Your task to perform on an android device: uninstall "Spotify" Image 0: 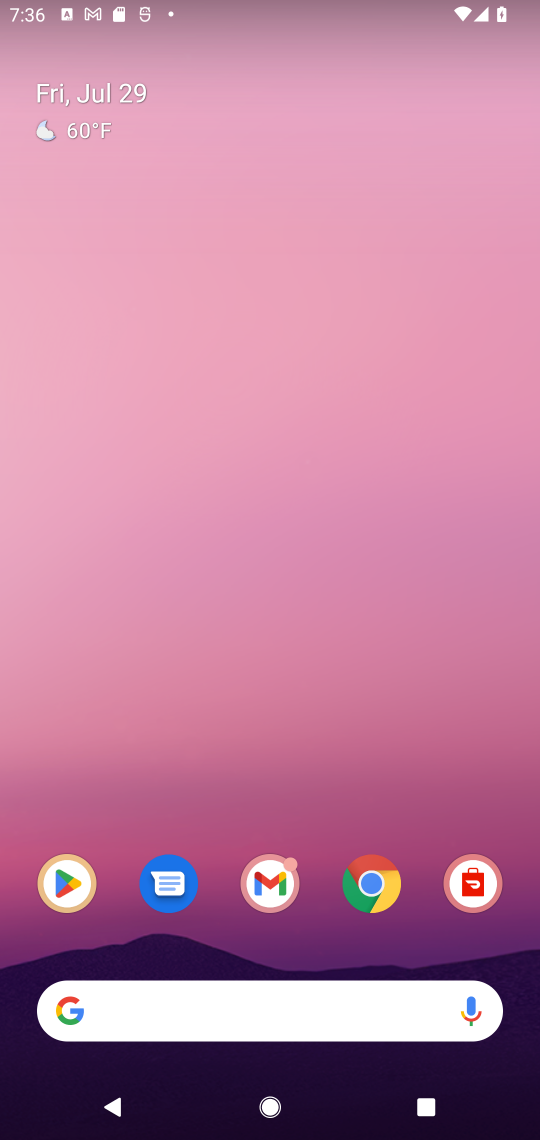
Step 0: click (53, 889)
Your task to perform on an android device: uninstall "Spotify" Image 1: 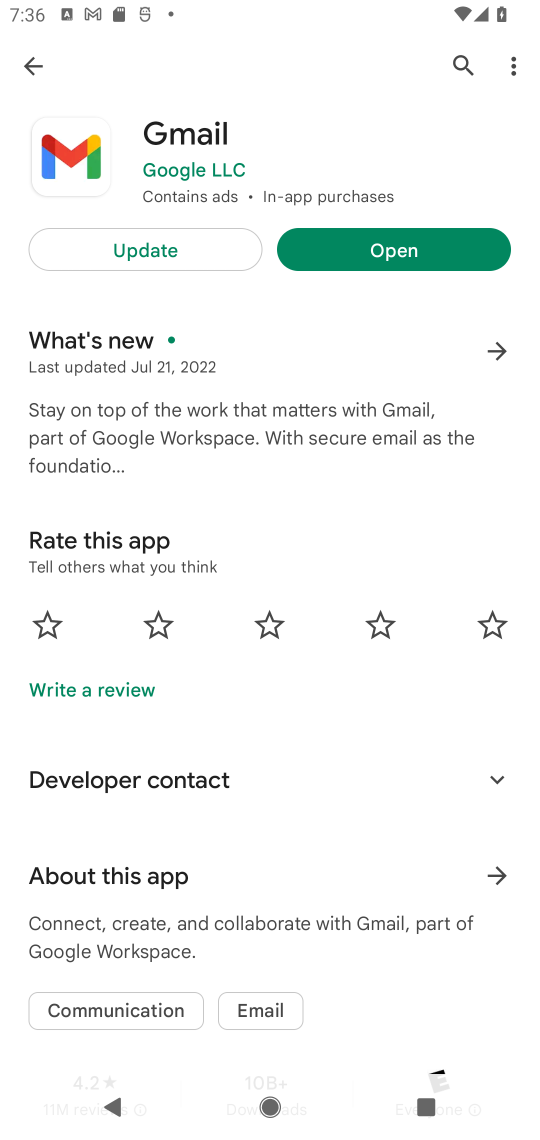
Step 1: click (458, 67)
Your task to perform on an android device: uninstall "Spotify" Image 2: 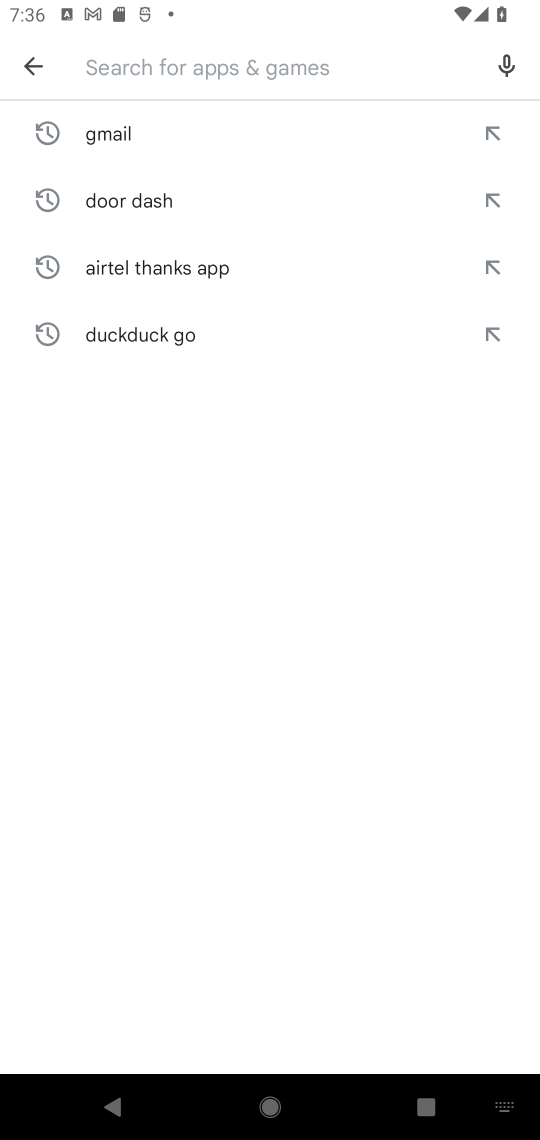
Step 2: click (138, 64)
Your task to perform on an android device: uninstall "Spotify" Image 3: 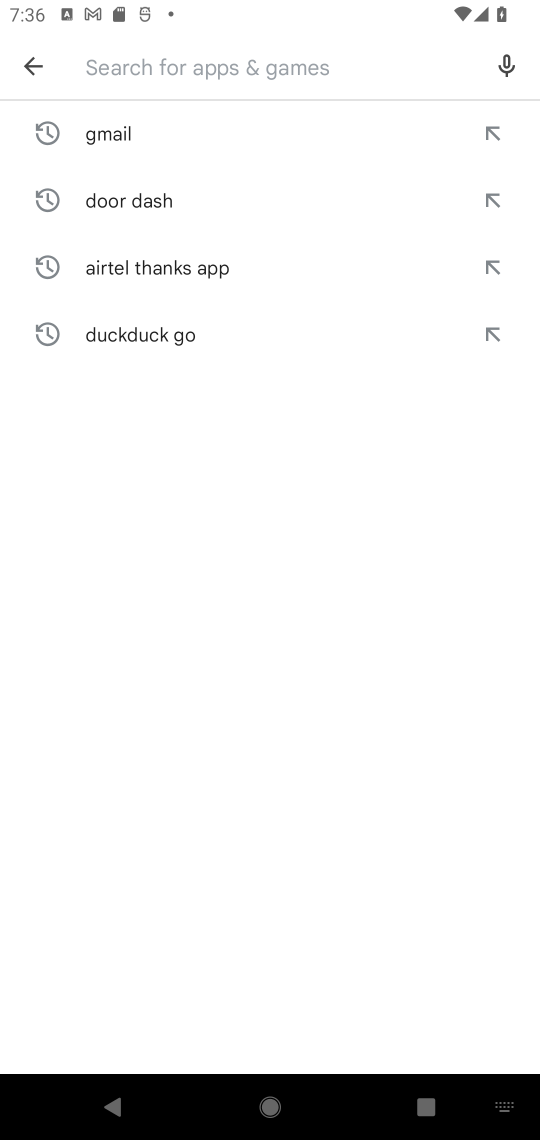
Step 3: type "spotify"
Your task to perform on an android device: uninstall "Spotify" Image 4: 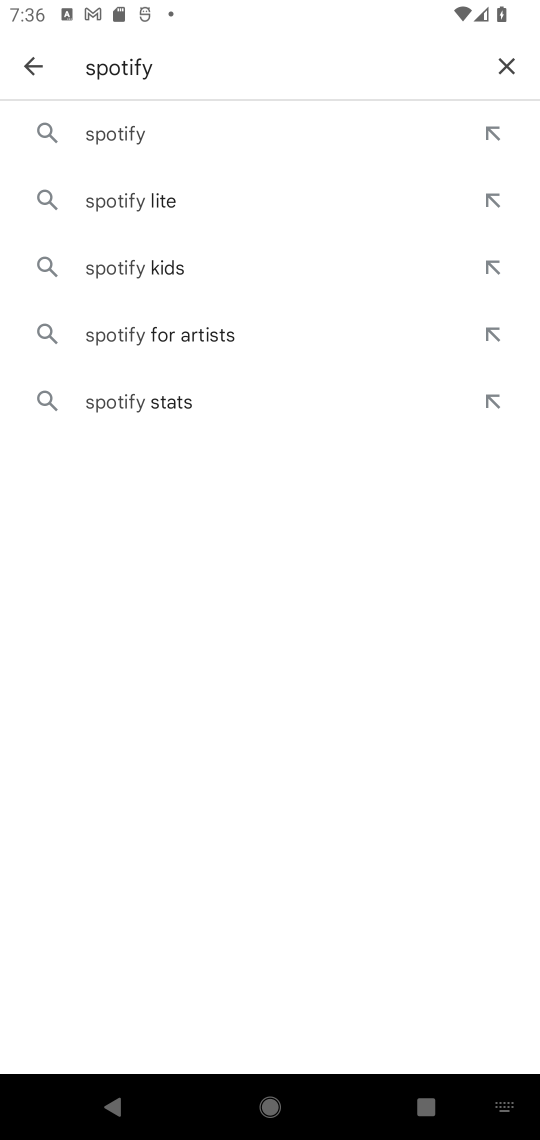
Step 4: click (147, 121)
Your task to perform on an android device: uninstall "Spotify" Image 5: 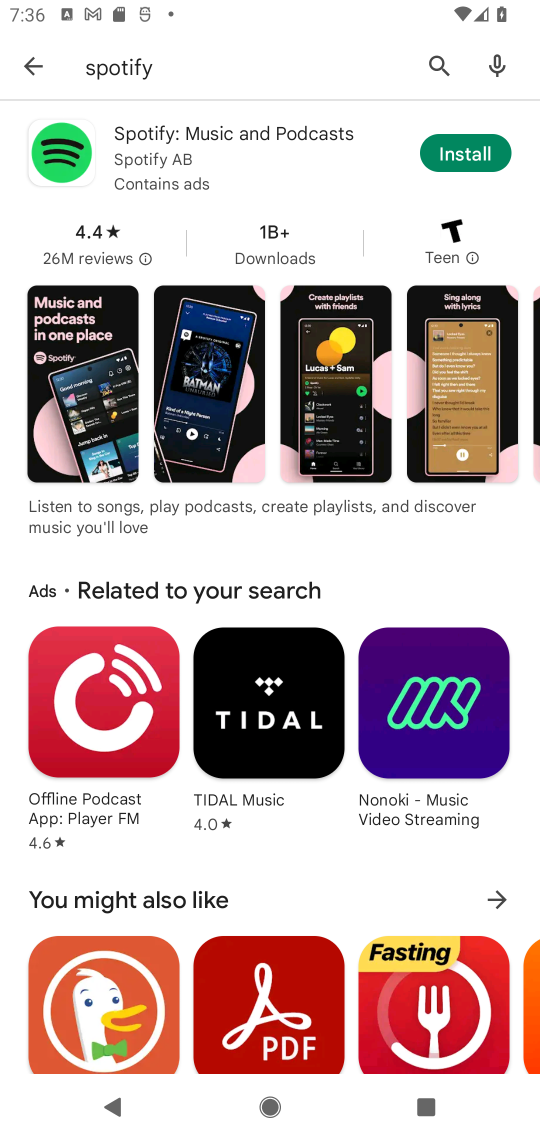
Step 5: task complete